Your task to perform on an android device: Empty the shopping cart on amazon. Add lenovo thinkpad to the cart on amazon, then select checkout. Image 0: 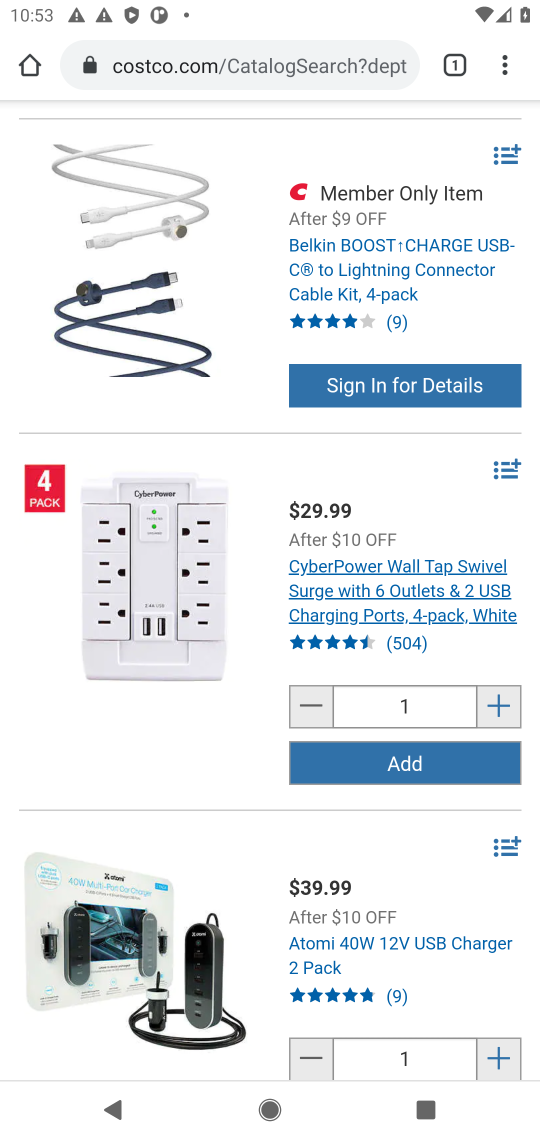
Step 0: click (270, 55)
Your task to perform on an android device: Empty the shopping cart on amazon. Add lenovo thinkpad to the cart on amazon, then select checkout. Image 1: 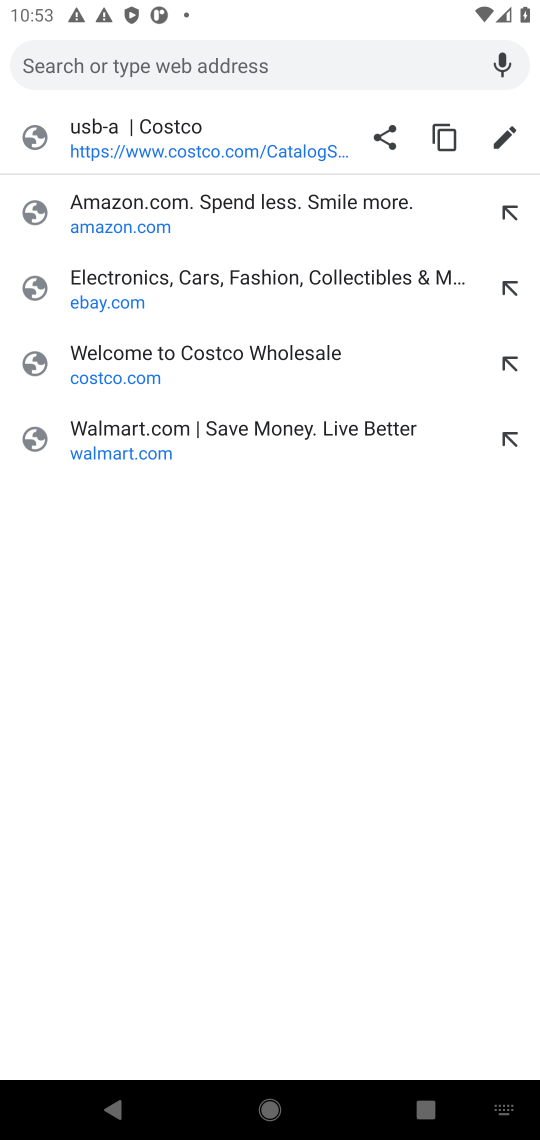
Step 1: type "amazon.com"
Your task to perform on an android device: Empty the shopping cart on amazon. Add lenovo thinkpad to the cart on amazon, then select checkout. Image 2: 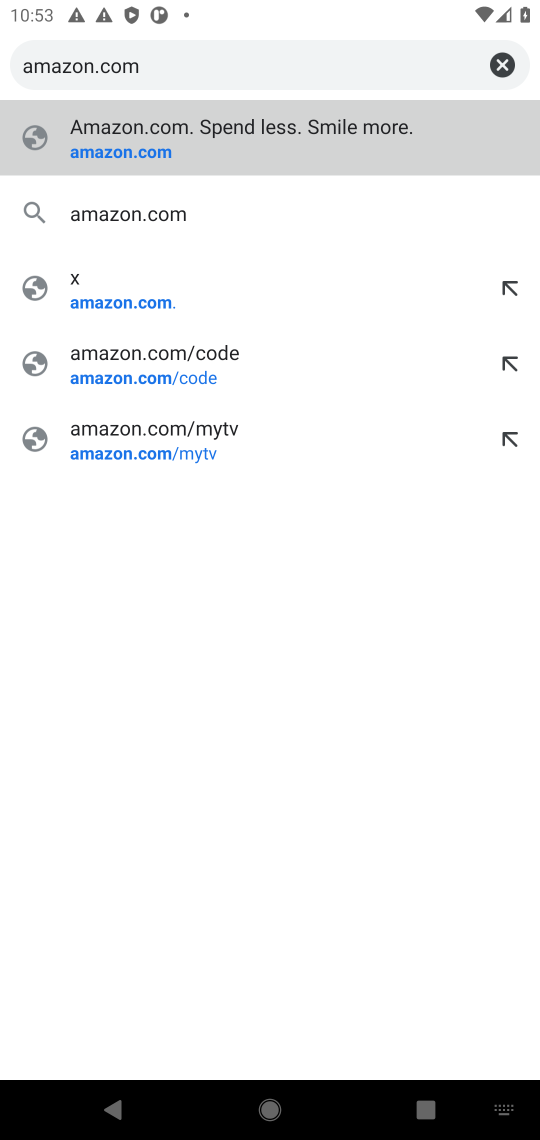
Step 2: press enter
Your task to perform on an android device: Empty the shopping cart on amazon. Add lenovo thinkpad to the cart on amazon, then select checkout. Image 3: 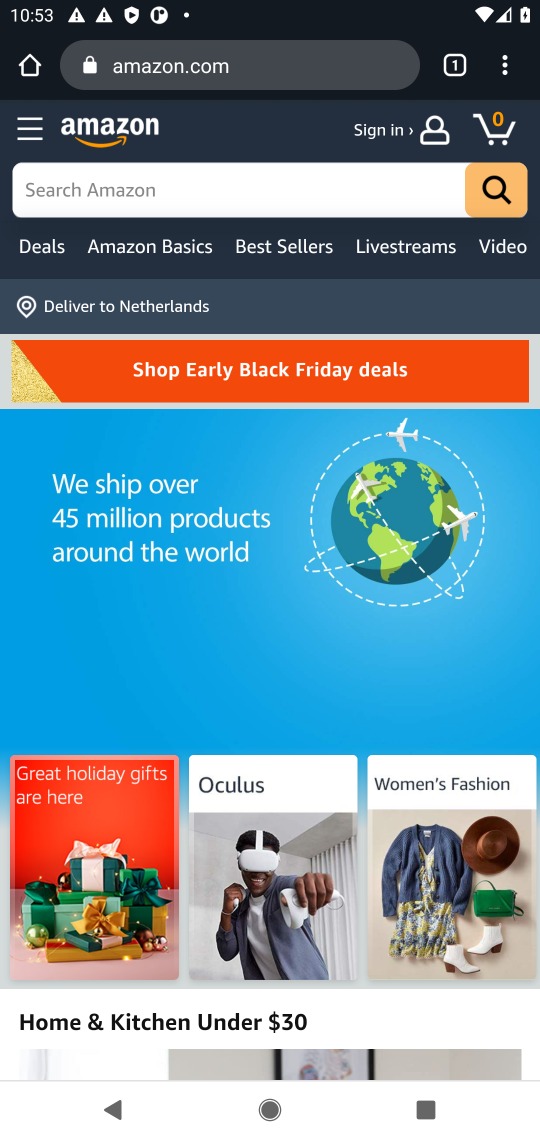
Step 3: click (498, 121)
Your task to perform on an android device: Empty the shopping cart on amazon. Add lenovo thinkpad to the cart on amazon, then select checkout. Image 4: 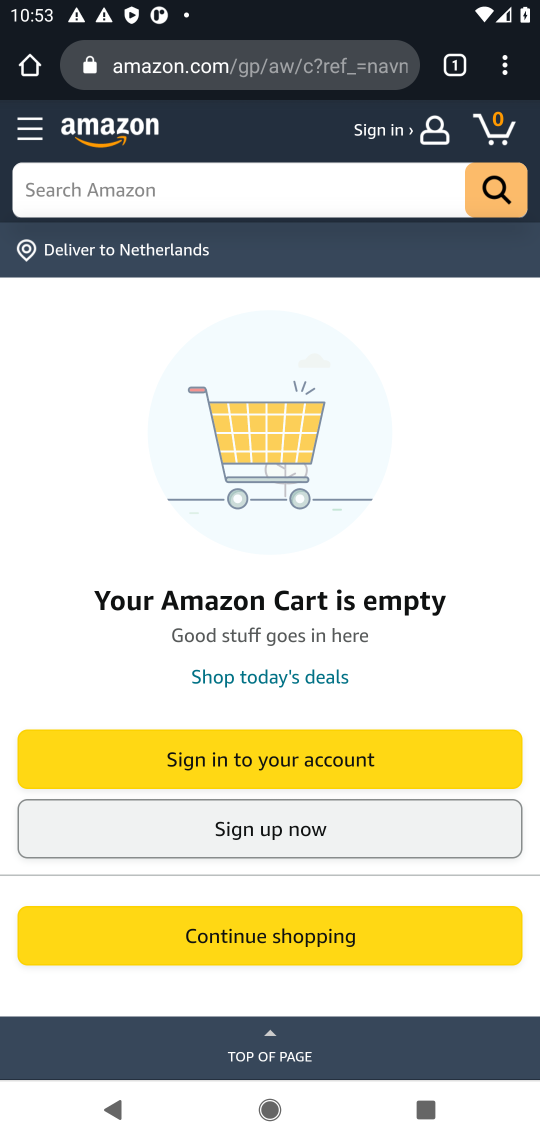
Step 4: click (282, 185)
Your task to perform on an android device: Empty the shopping cart on amazon. Add lenovo thinkpad to the cart on amazon, then select checkout. Image 5: 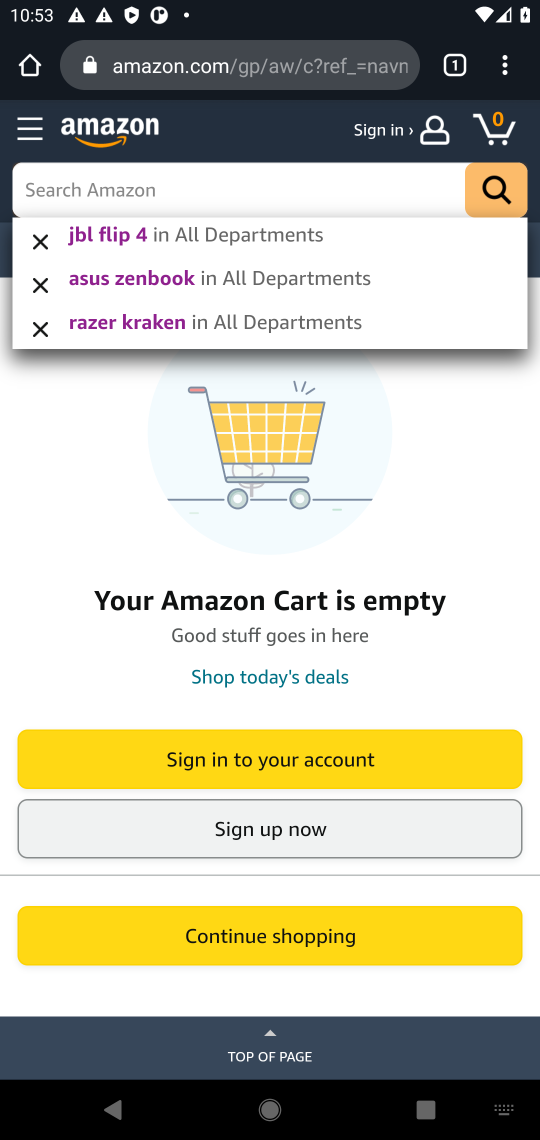
Step 5: type "lenovo thinkpad"
Your task to perform on an android device: Empty the shopping cart on amazon. Add lenovo thinkpad to the cart on amazon, then select checkout. Image 6: 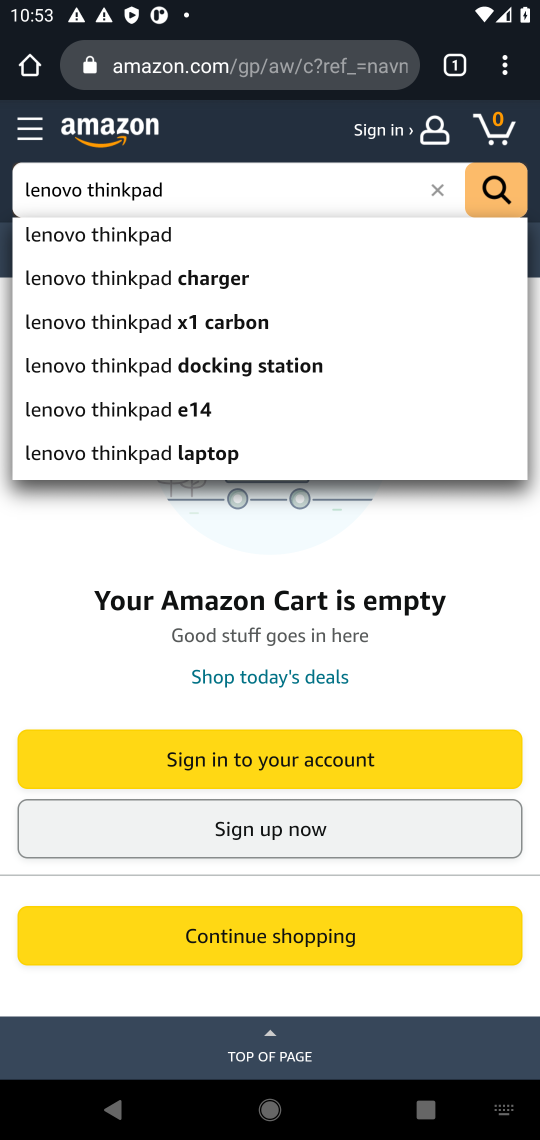
Step 6: press enter
Your task to perform on an android device: Empty the shopping cart on amazon. Add lenovo thinkpad to the cart on amazon, then select checkout. Image 7: 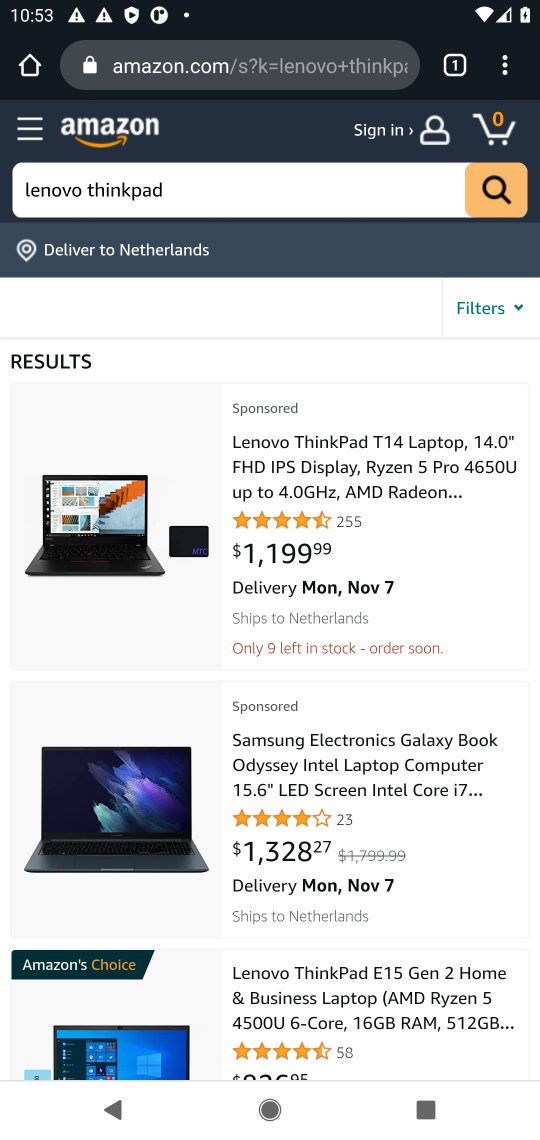
Step 7: drag from (307, 986) to (366, 480)
Your task to perform on an android device: Empty the shopping cart on amazon. Add lenovo thinkpad to the cart on amazon, then select checkout. Image 8: 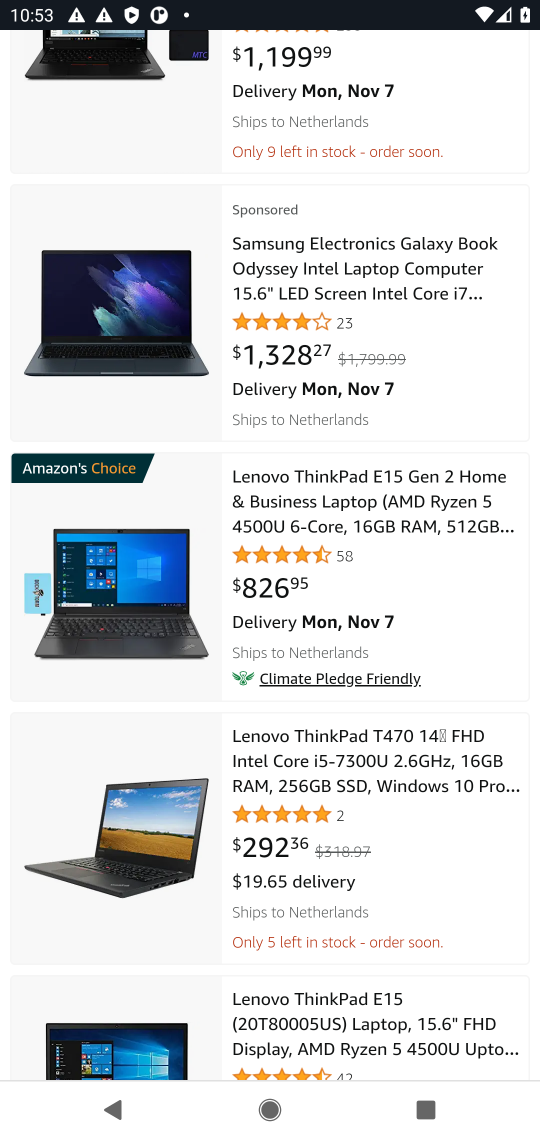
Step 8: click (327, 511)
Your task to perform on an android device: Empty the shopping cart on amazon. Add lenovo thinkpad to the cart on amazon, then select checkout. Image 9: 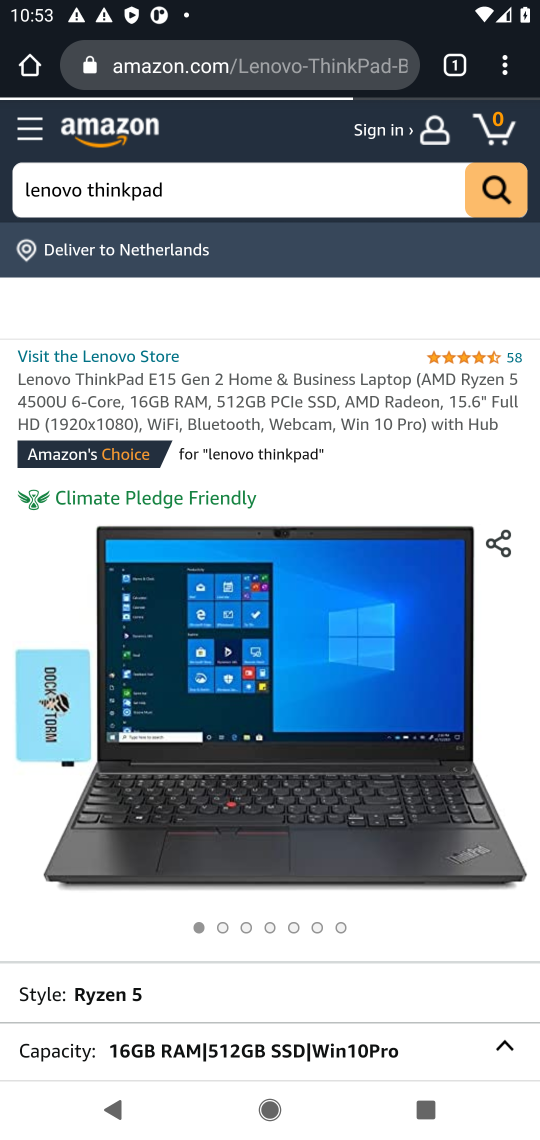
Step 9: drag from (318, 898) to (331, 205)
Your task to perform on an android device: Empty the shopping cart on amazon. Add lenovo thinkpad to the cart on amazon, then select checkout. Image 10: 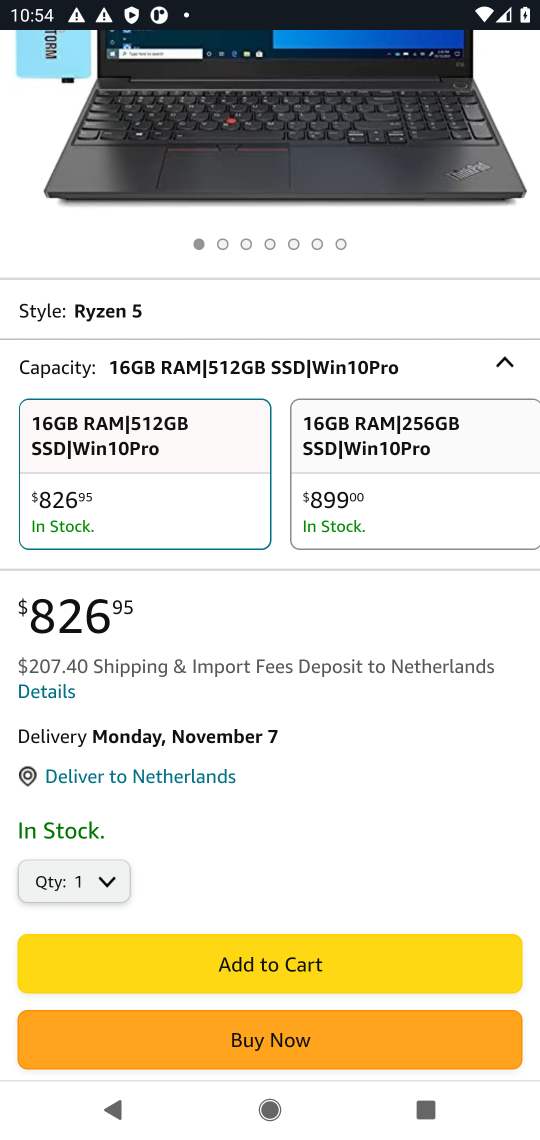
Step 10: click (256, 961)
Your task to perform on an android device: Empty the shopping cart on amazon. Add lenovo thinkpad to the cart on amazon, then select checkout. Image 11: 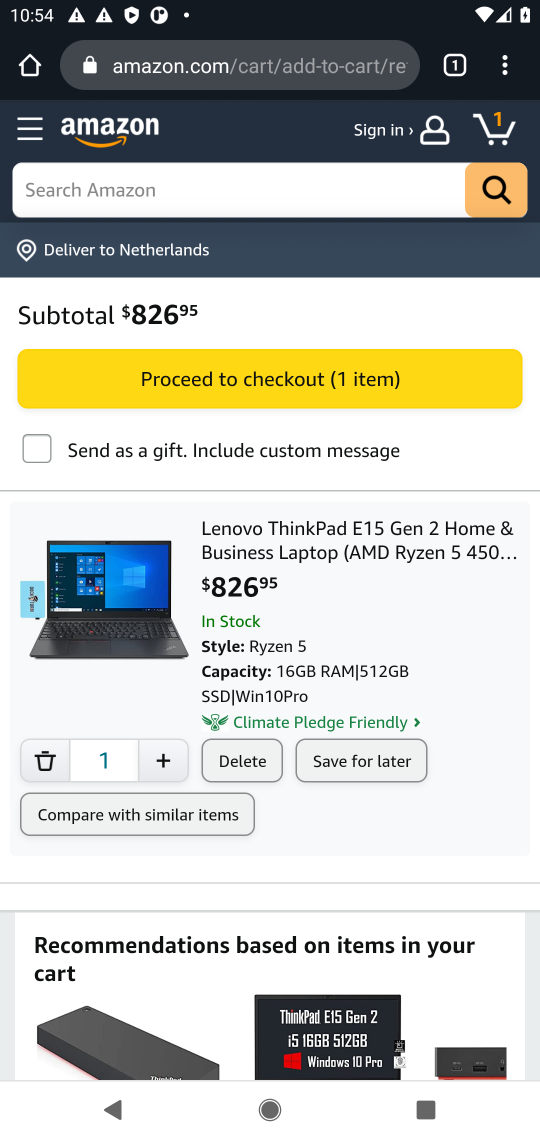
Step 11: click (292, 376)
Your task to perform on an android device: Empty the shopping cart on amazon. Add lenovo thinkpad to the cart on amazon, then select checkout. Image 12: 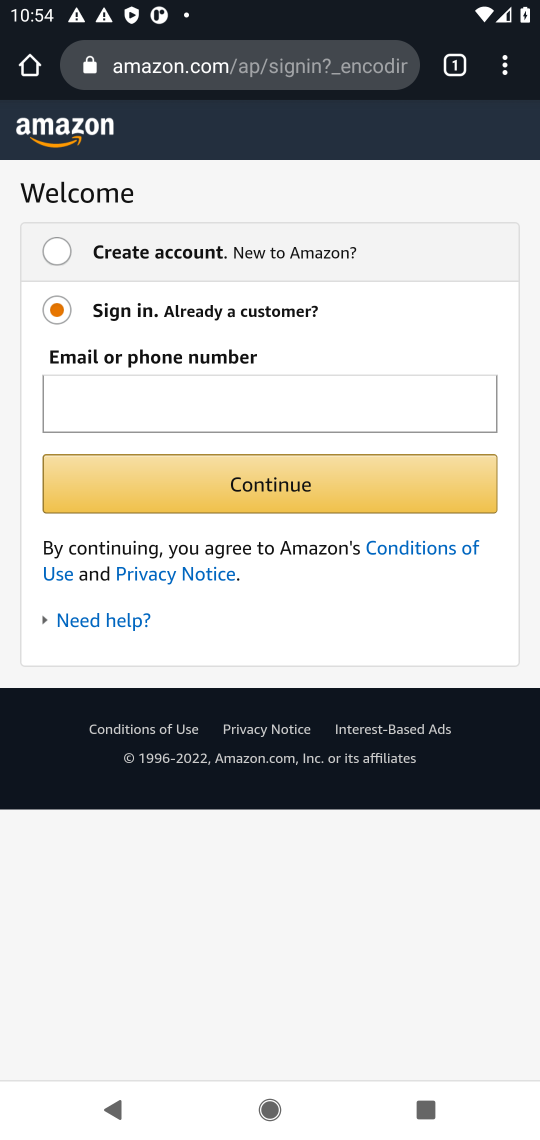
Step 12: task complete